Your task to perform on an android device: Open Android settings Image 0: 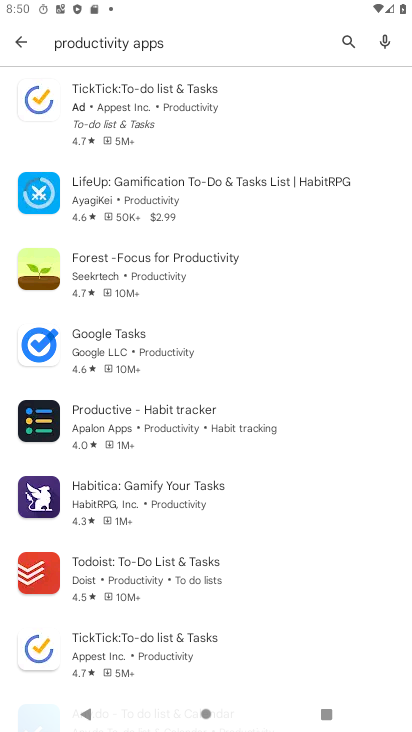
Step 0: press home button
Your task to perform on an android device: Open Android settings Image 1: 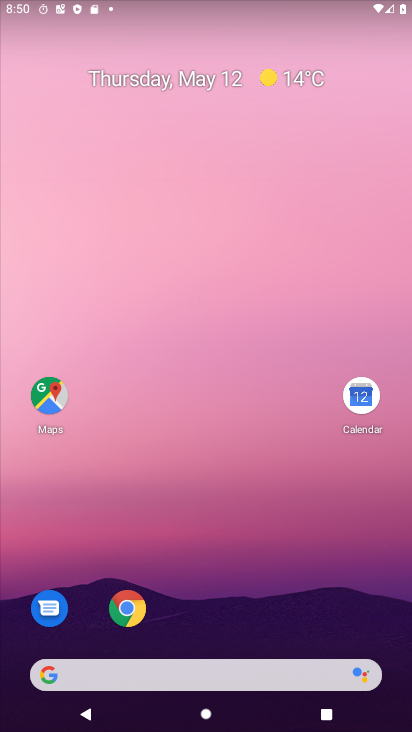
Step 1: drag from (252, 538) to (160, 185)
Your task to perform on an android device: Open Android settings Image 2: 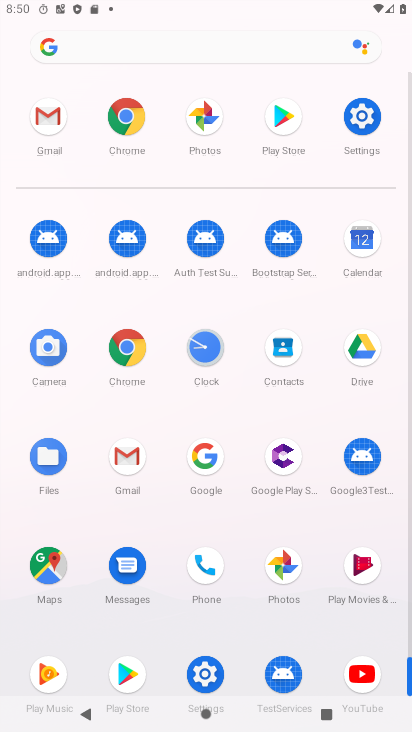
Step 2: click (336, 125)
Your task to perform on an android device: Open Android settings Image 3: 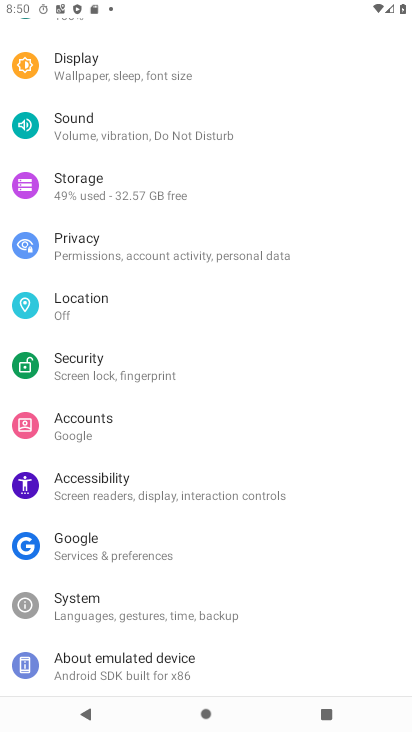
Step 3: click (358, 125)
Your task to perform on an android device: Open Android settings Image 4: 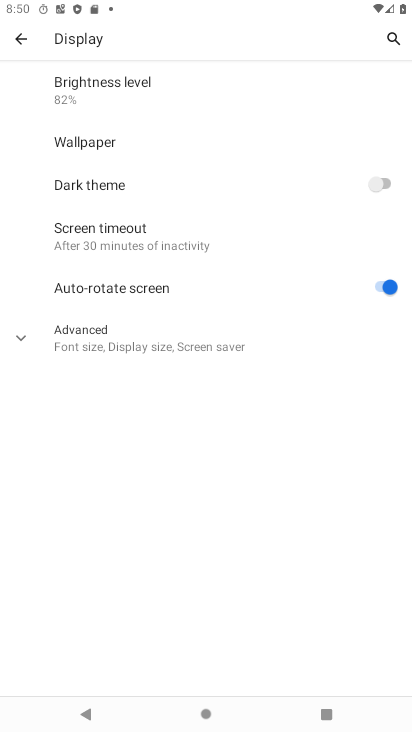
Step 4: task complete